Your task to perform on an android device: change the upload size in google photos Image 0: 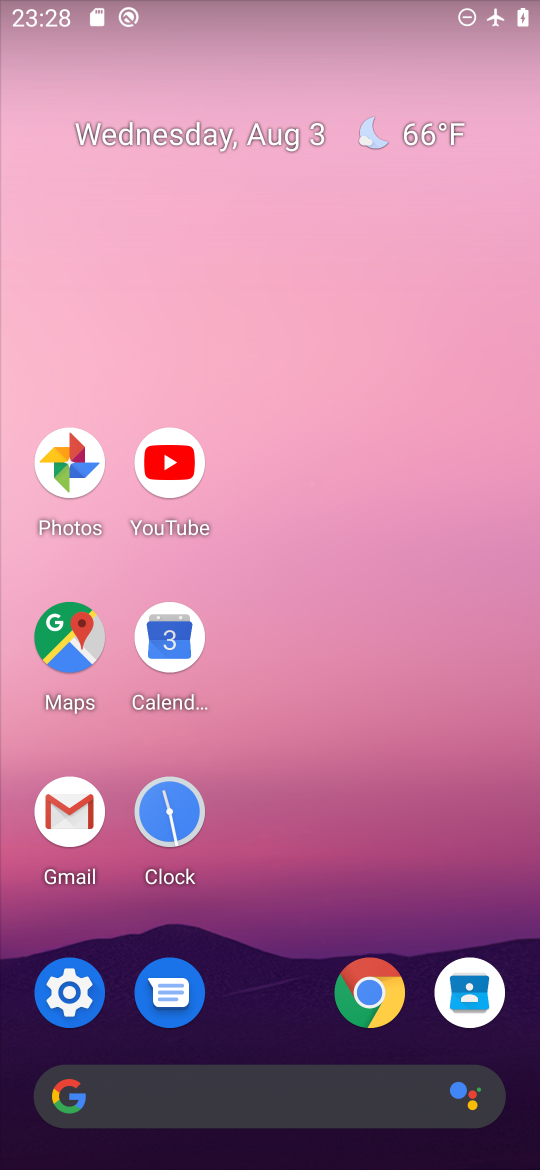
Step 0: click (74, 977)
Your task to perform on an android device: change the upload size in google photos Image 1: 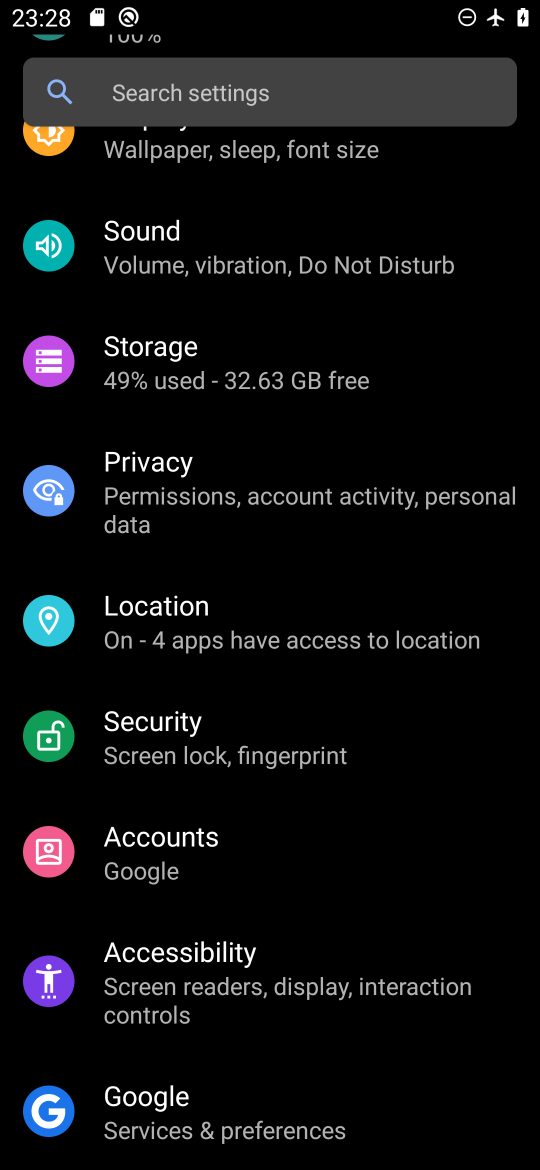
Step 1: click (216, 157)
Your task to perform on an android device: change the upload size in google photos Image 2: 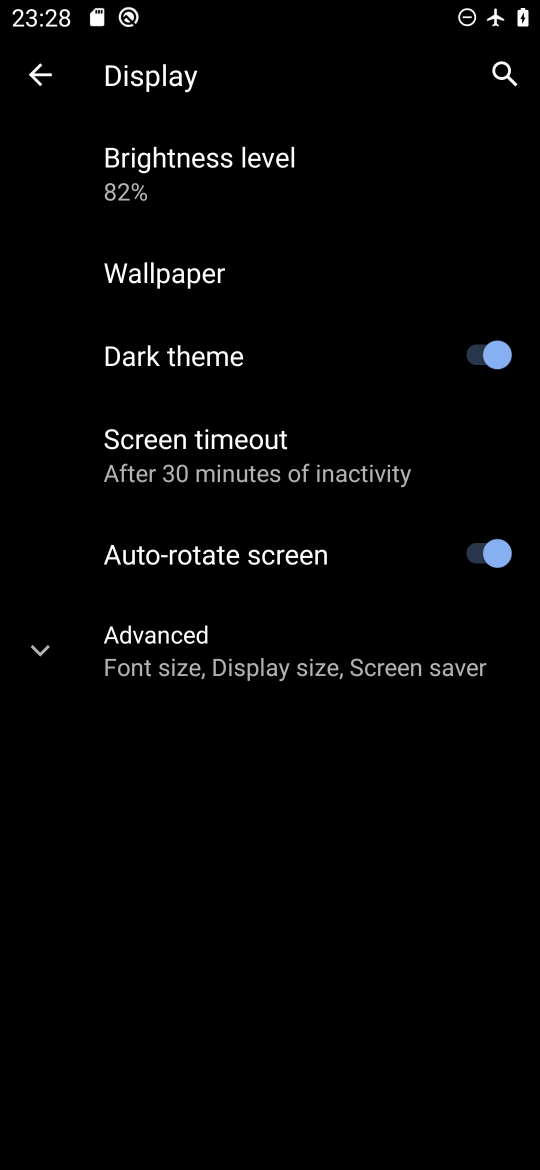
Step 2: task complete